Your task to perform on an android device: Go to display settings Image 0: 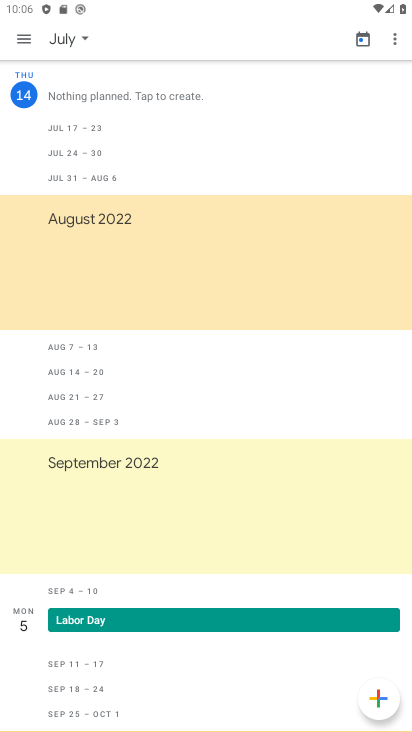
Step 0: press home button
Your task to perform on an android device: Go to display settings Image 1: 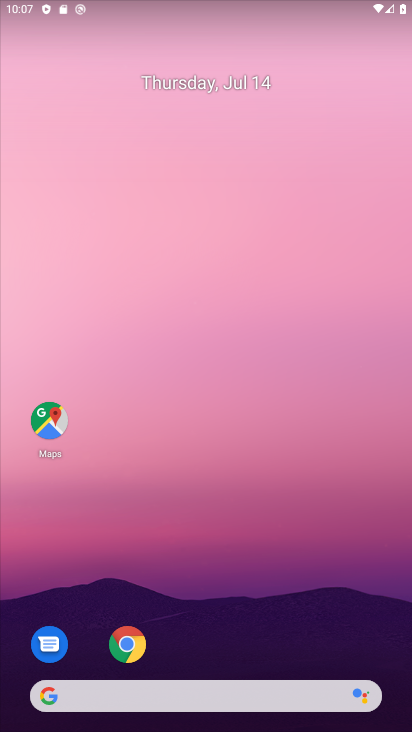
Step 1: drag from (244, 664) to (167, 91)
Your task to perform on an android device: Go to display settings Image 2: 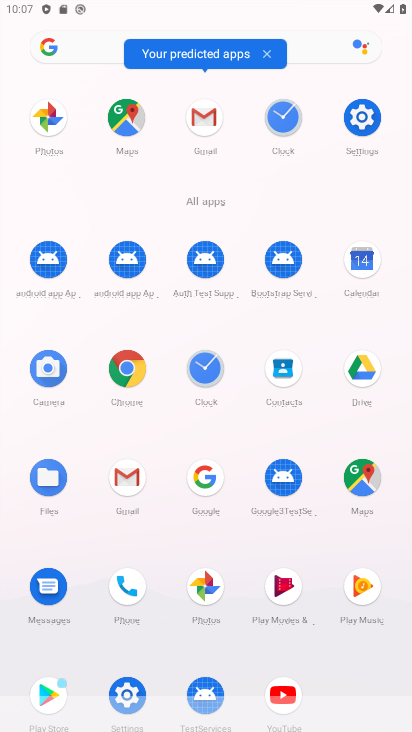
Step 2: click (362, 110)
Your task to perform on an android device: Go to display settings Image 3: 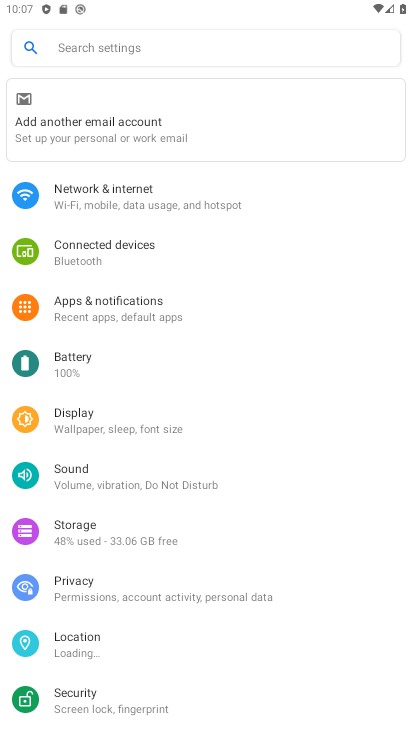
Step 3: click (176, 426)
Your task to perform on an android device: Go to display settings Image 4: 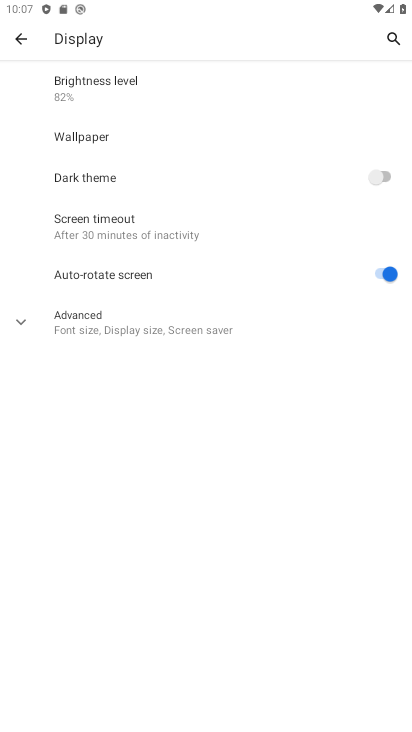
Step 4: task complete